Your task to perform on an android device: Open Chrome and go to settings Image 0: 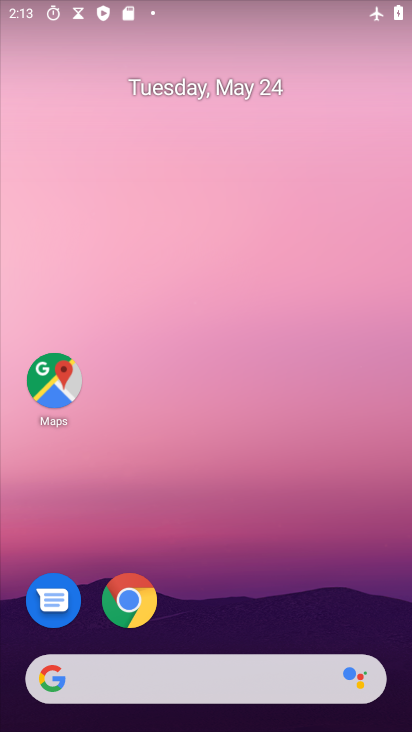
Step 0: click (142, 599)
Your task to perform on an android device: Open Chrome and go to settings Image 1: 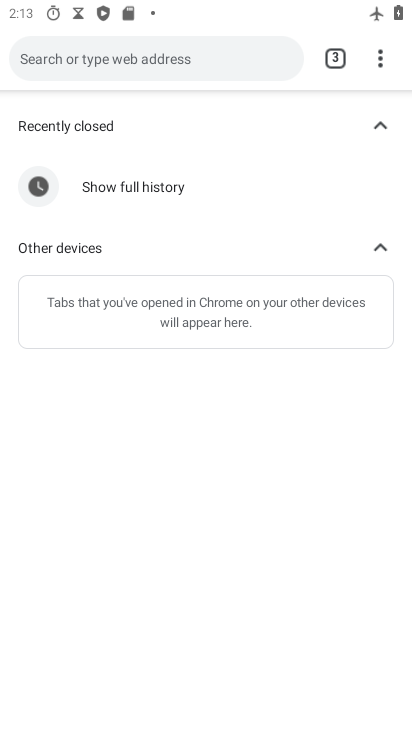
Step 1: click (380, 62)
Your task to perform on an android device: Open Chrome and go to settings Image 2: 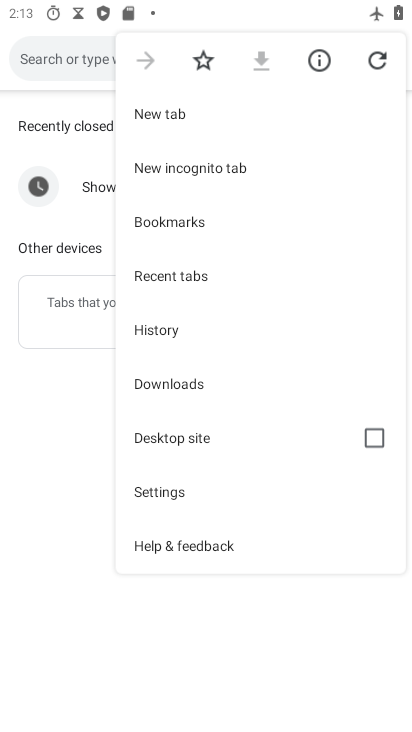
Step 2: click (196, 497)
Your task to perform on an android device: Open Chrome and go to settings Image 3: 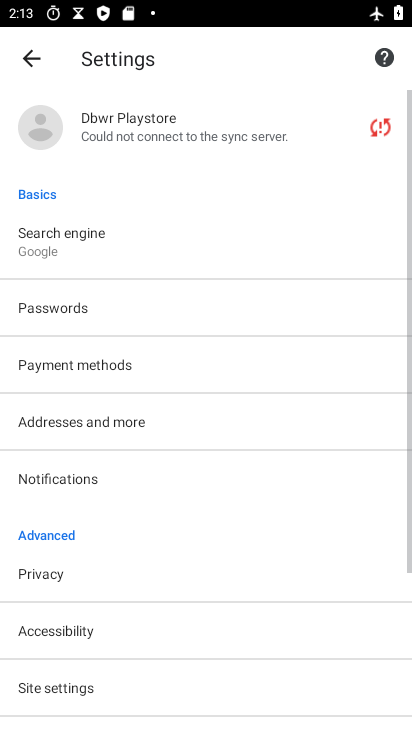
Step 3: task complete